Your task to perform on an android device: Open the calendar and show me this week's events? Image 0: 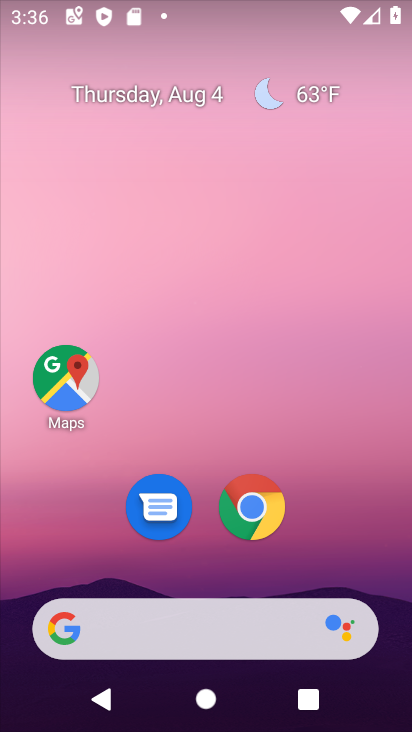
Step 0: click (113, 632)
Your task to perform on an android device: Open the calendar and show me this week's events? Image 1: 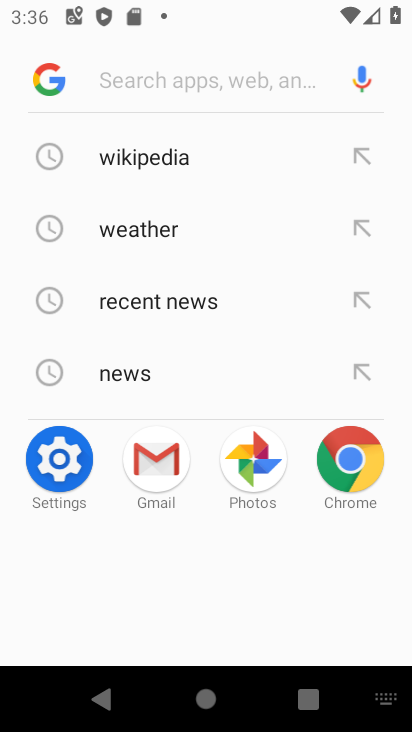
Step 1: press home button
Your task to perform on an android device: Open the calendar and show me this week's events? Image 2: 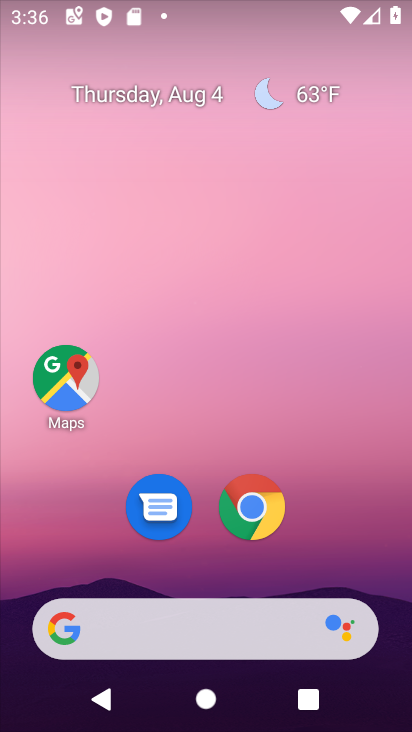
Step 2: drag from (38, 679) to (325, 0)
Your task to perform on an android device: Open the calendar and show me this week's events? Image 3: 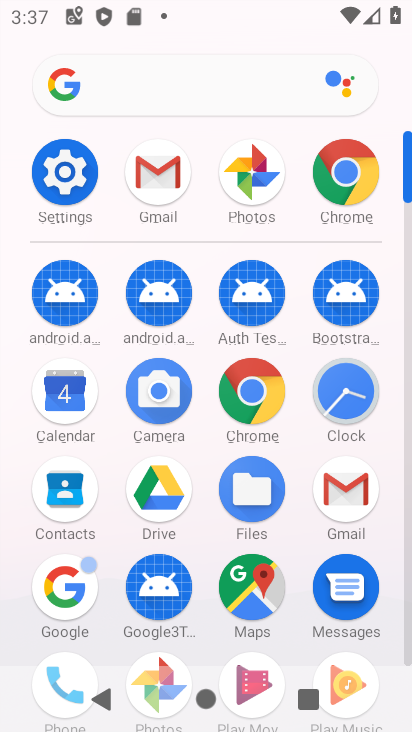
Step 3: click (78, 408)
Your task to perform on an android device: Open the calendar and show me this week's events? Image 4: 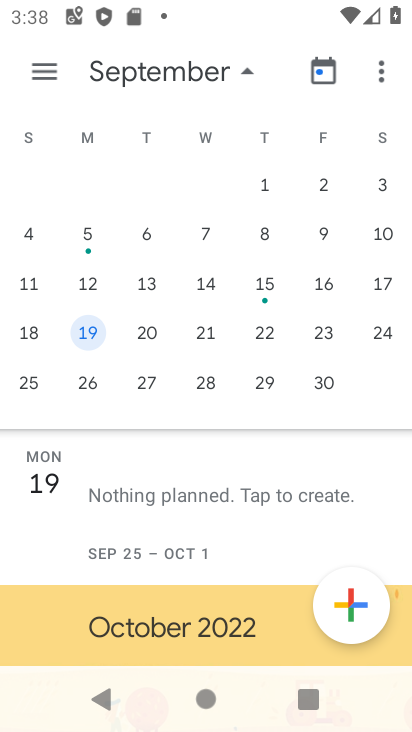
Step 4: task complete